Your task to perform on an android device: turn off priority inbox in the gmail app Image 0: 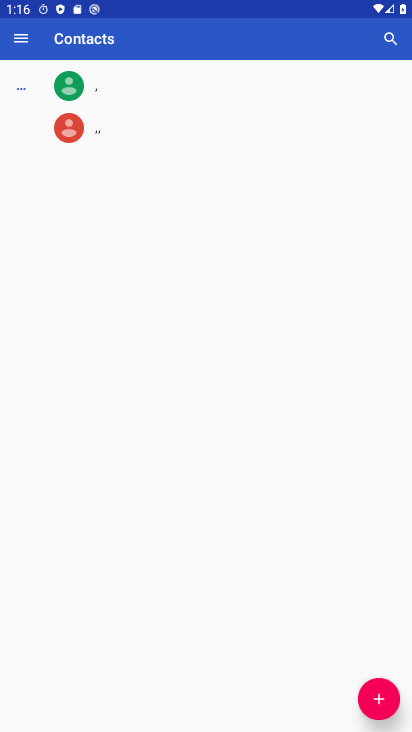
Step 0: press home button
Your task to perform on an android device: turn off priority inbox in the gmail app Image 1: 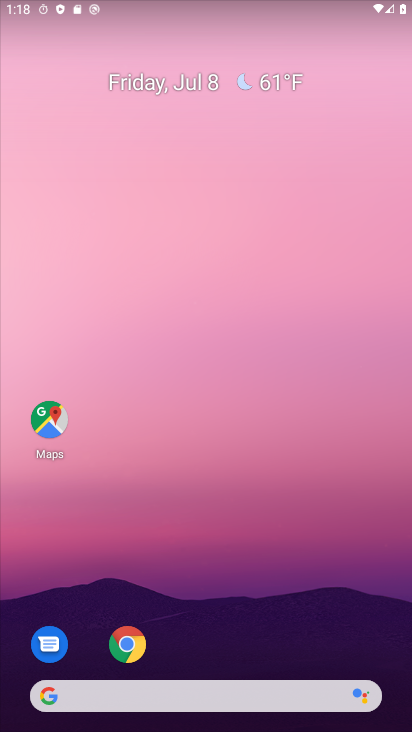
Step 1: drag from (196, 76) to (202, 17)
Your task to perform on an android device: turn off priority inbox in the gmail app Image 2: 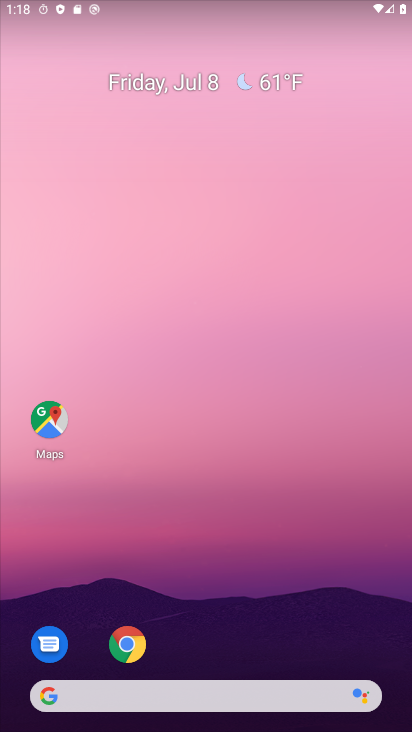
Step 2: drag from (242, 215) to (163, 106)
Your task to perform on an android device: turn off priority inbox in the gmail app Image 3: 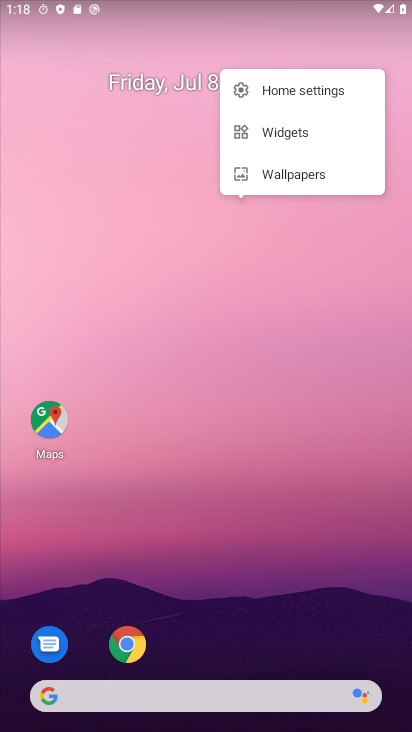
Step 3: click (150, 585)
Your task to perform on an android device: turn off priority inbox in the gmail app Image 4: 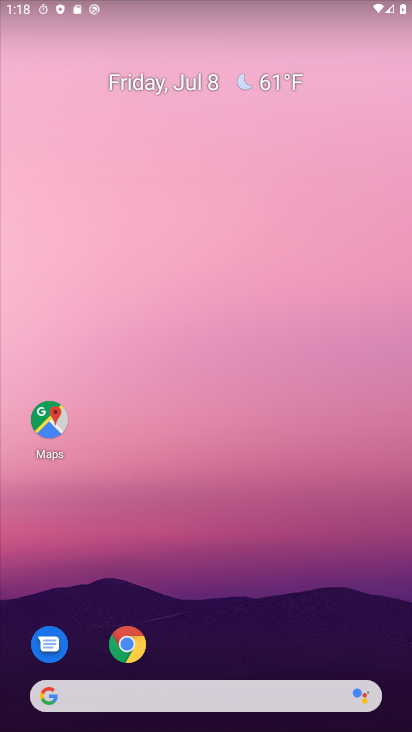
Step 4: drag from (177, 626) to (248, 226)
Your task to perform on an android device: turn off priority inbox in the gmail app Image 5: 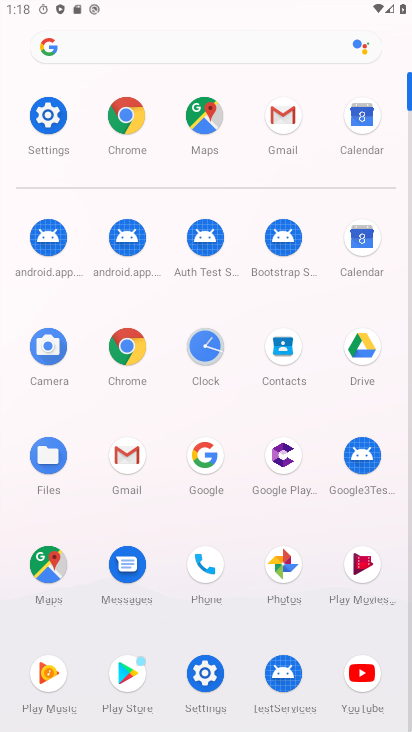
Step 5: click (277, 133)
Your task to perform on an android device: turn off priority inbox in the gmail app Image 6: 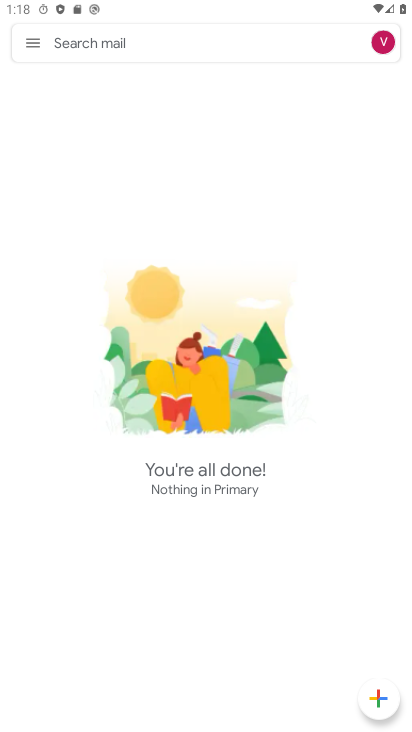
Step 6: click (32, 39)
Your task to perform on an android device: turn off priority inbox in the gmail app Image 7: 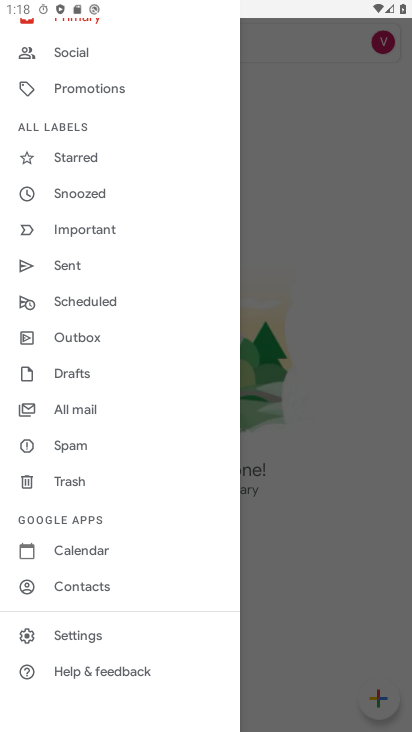
Step 7: click (61, 629)
Your task to perform on an android device: turn off priority inbox in the gmail app Image 8: 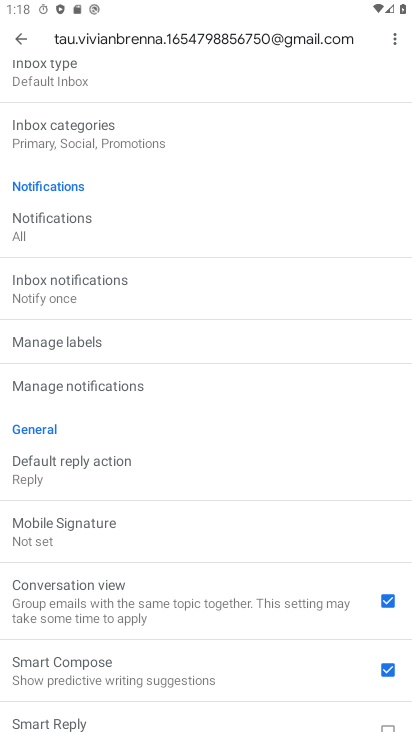
Step 8: drag from (160, 324) to (147, 725)
Your task to perform on an android device: turn off priority inbox in the gmail app Image 9: 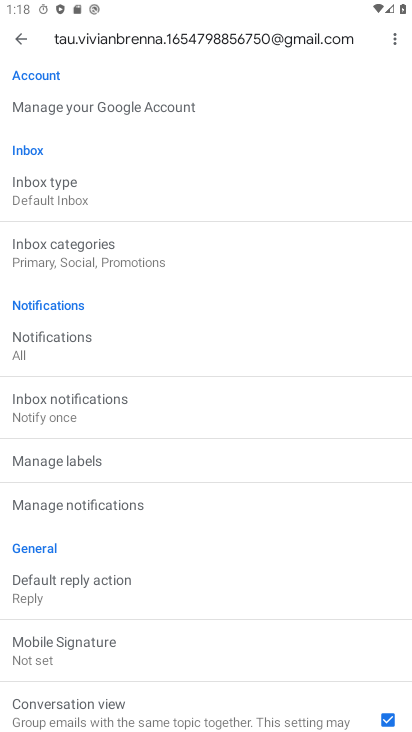
Step 9: click (58, 185)
Your task to perform on an android device: turn off priority inbox in the gmail app Image 10: 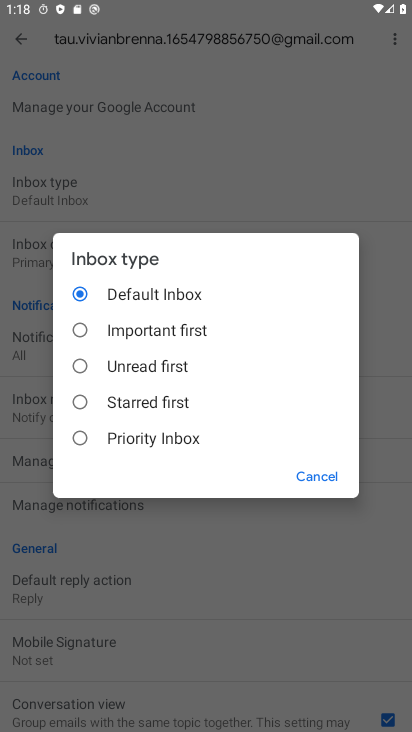
Step 10: task complete